Your task to perform on an android device: turn on wifi Image 0: 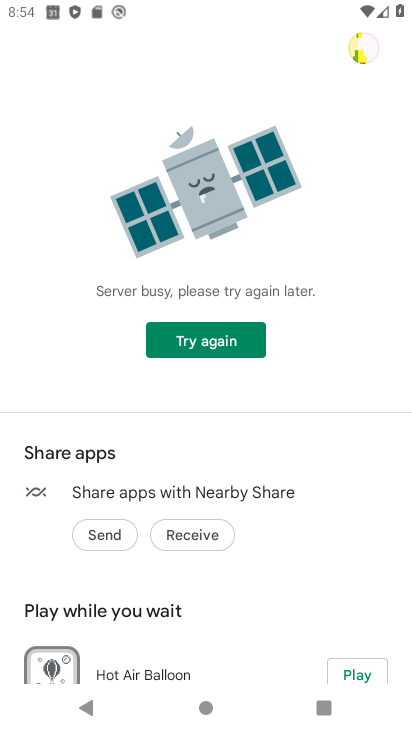
Step 0: press home button
Your task to perform on an android device: turn on wifi Image 1: 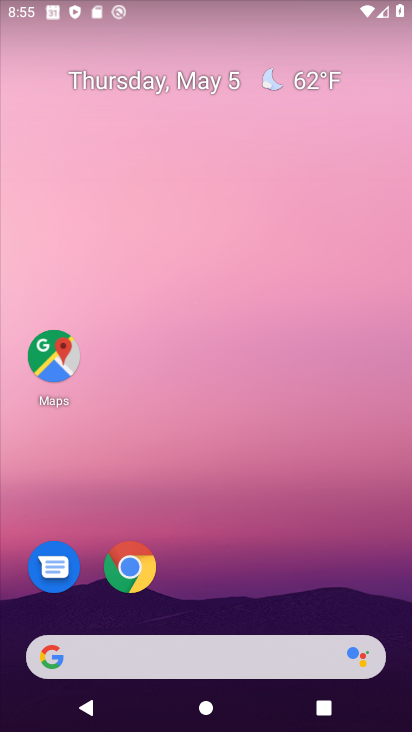
Step 1: drag from (213, 728) to (176, 166)
Your task to perform on an android device: turn on wifi Image 2: 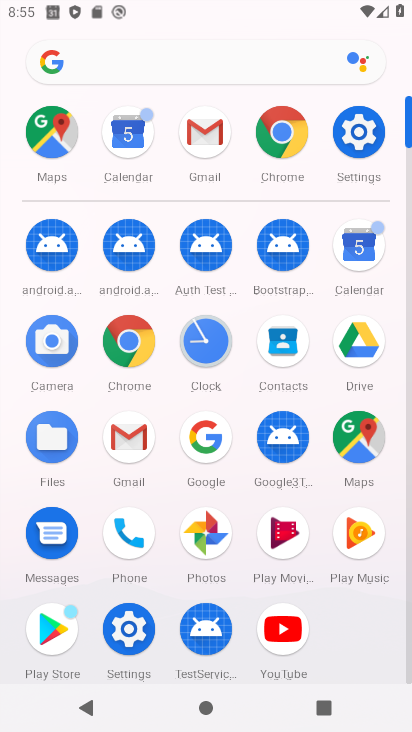
Step 2: click (365, 131)
Your task to perform on an android device: turn on wifi Image 3: 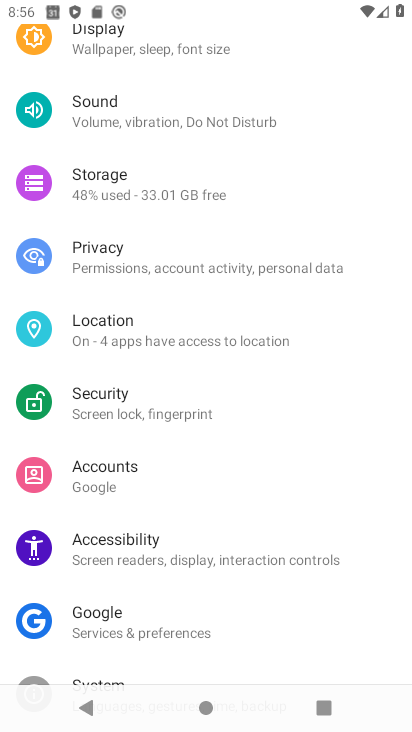
Step 3: drag from (150, 97) to (143, 542)
Your task to perform on an android device: turn on wifi Image 4: 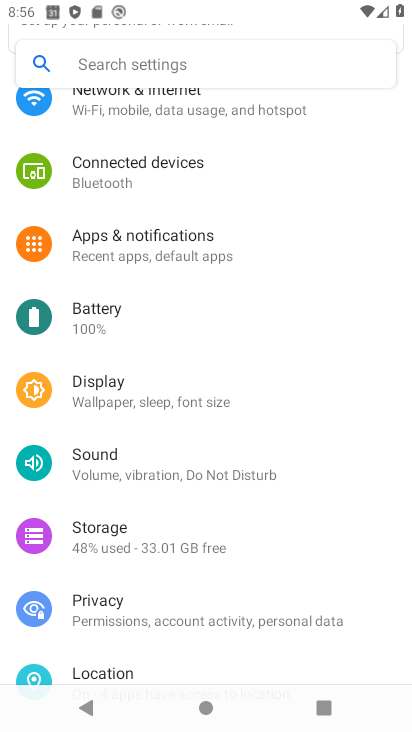
Step 4: drag from (179, 135) to (167, 494)
Your task to perform on an android device: turn on wifi Image 5: 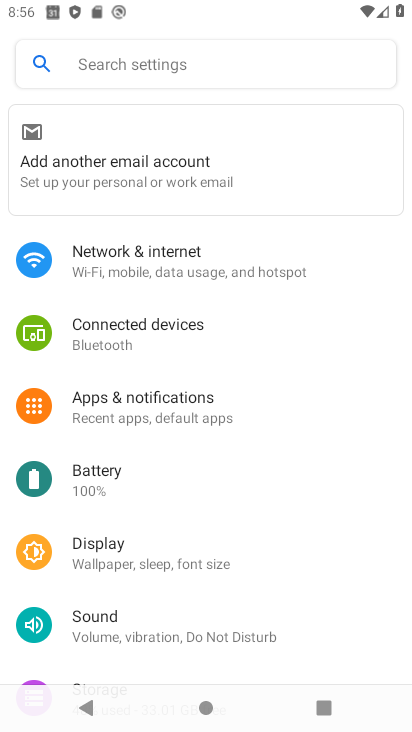
Step 5: click (147, 267)
Your task to perform on an android device: turn on wifi Image 6: 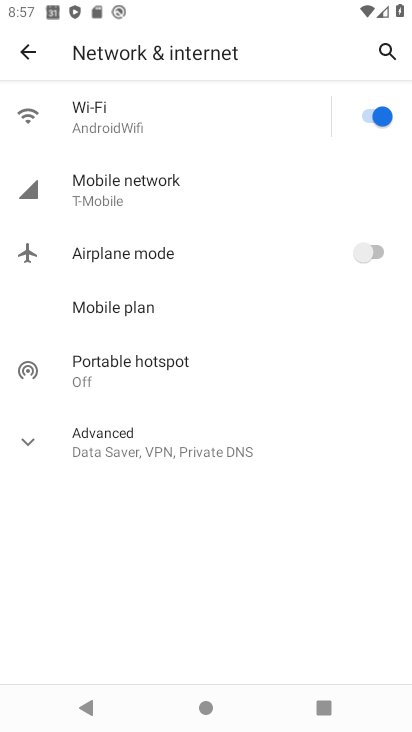
Step 6: task complete